Your task to perform on an android device: empty trash in google photos Image 0: 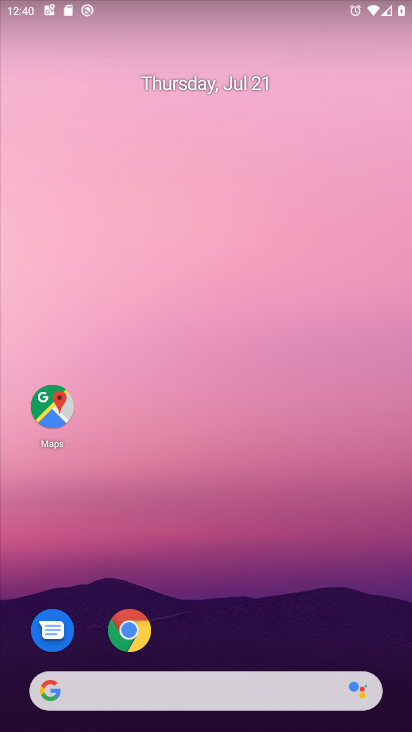
Step 0: drag from (169, 653) to (255, 50)
Your task to perform on an android device: empty trash in google photos Image 1: 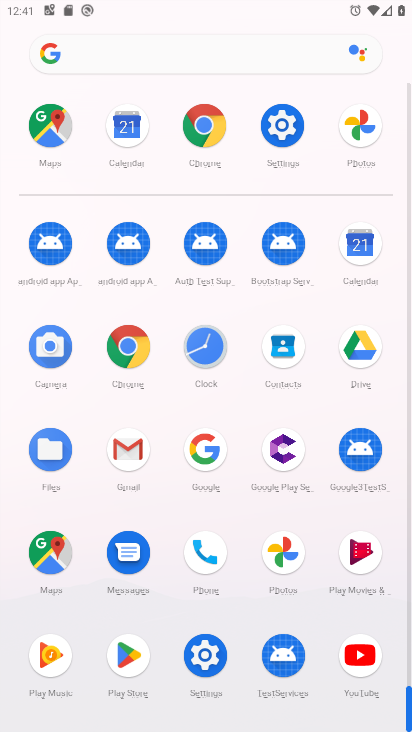
Step 1: click (285, 551)
Your task to perform on an android device: empty trash in google photos Image 2: 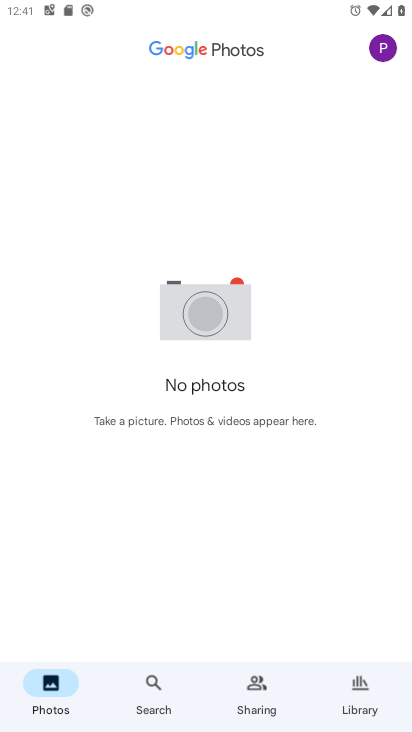
Step 2: click (353, 693)
Your task to perform on an android device: empty trash in google photos Image 3: 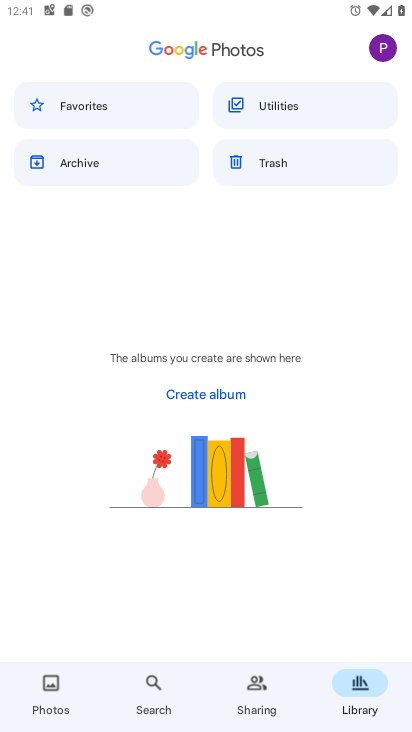
Step 3: click (294, 175)
Your task to perform on an android device: empty trash in google photos Image 4: 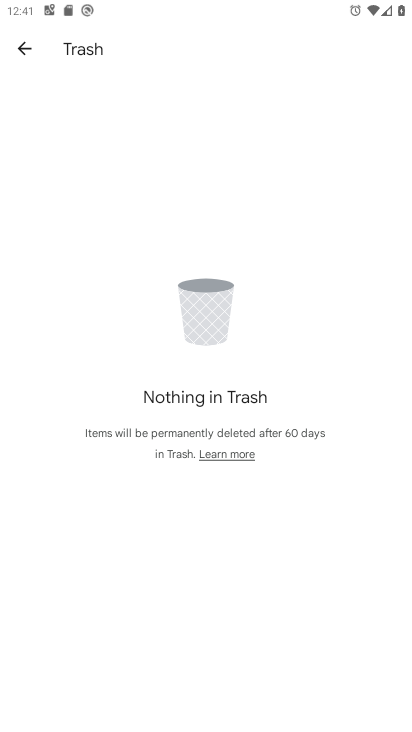
Step 4: task complete